Your task to perform on an android device: Turn off the flashlight Image 0: 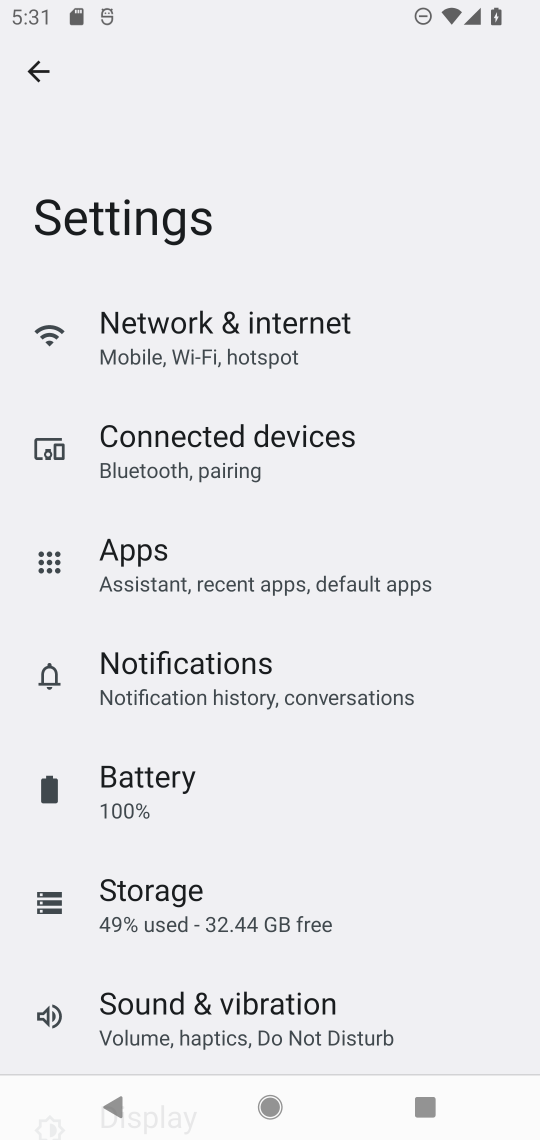
Step 0: press home button
Your task to perform on an android device: Turn off the flashlight Image 1: 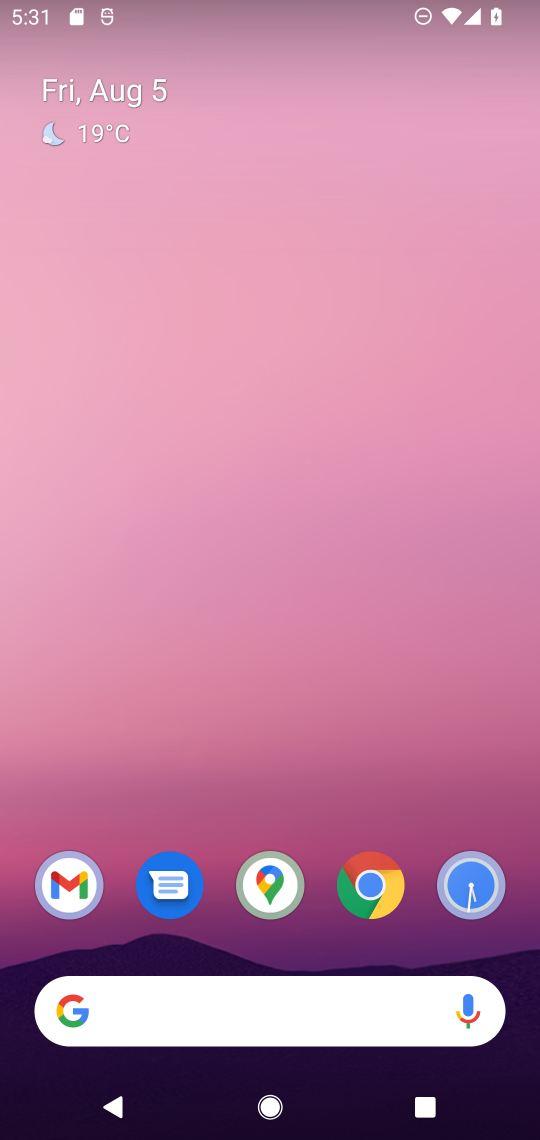
Step 1: drag from (297, 938) to (294, 230)
Your task to perform on an android device: Turn off the flashlight Image 2: 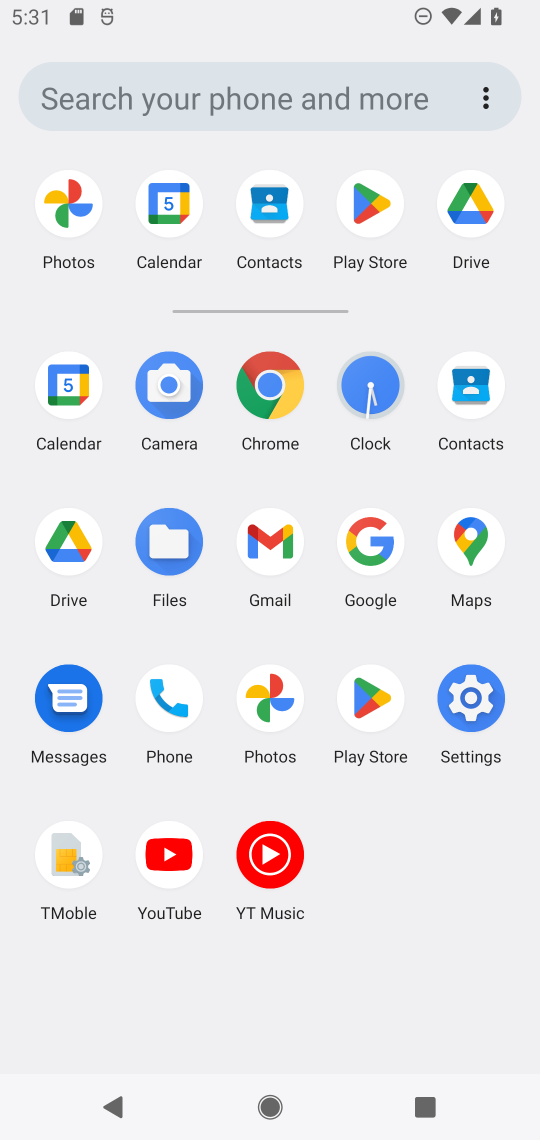
Step 2: click (459, 665)
Your task to perform on an android device: Turn off the flashlight Image 3: 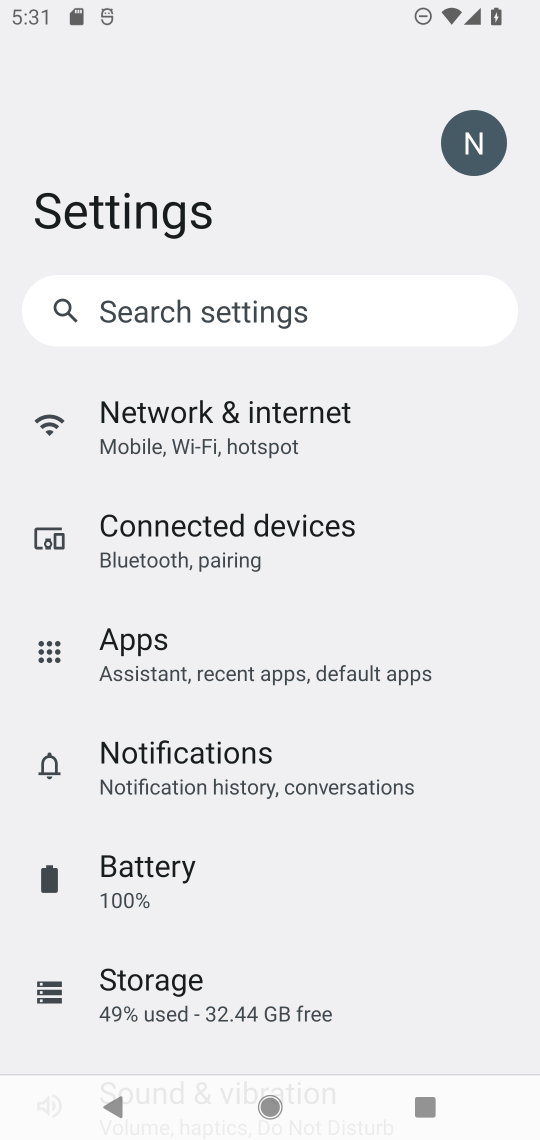
Step 3: task complete